Your task to perform on an android device: Go to Google maps Image 0: 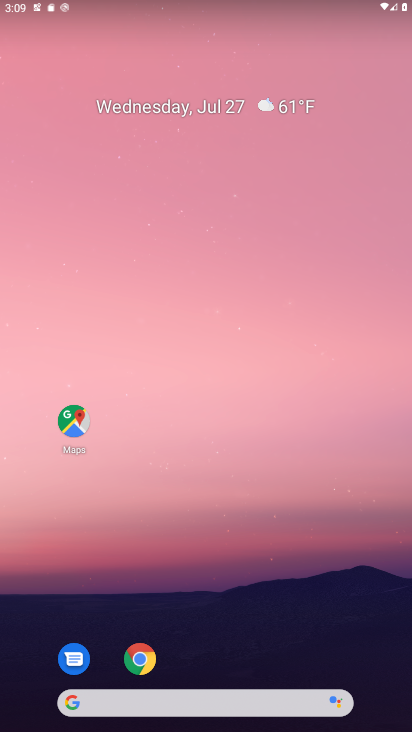
Step 0: click (75, 432)
Your task to perform on an android device: Go to Google maps Image 1: 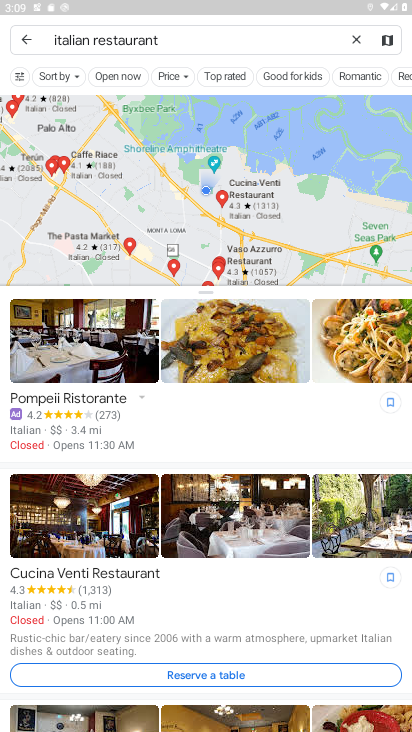
Step 1: task complete